Your task to perform on an android device: open sync settings in chrome Image 0: 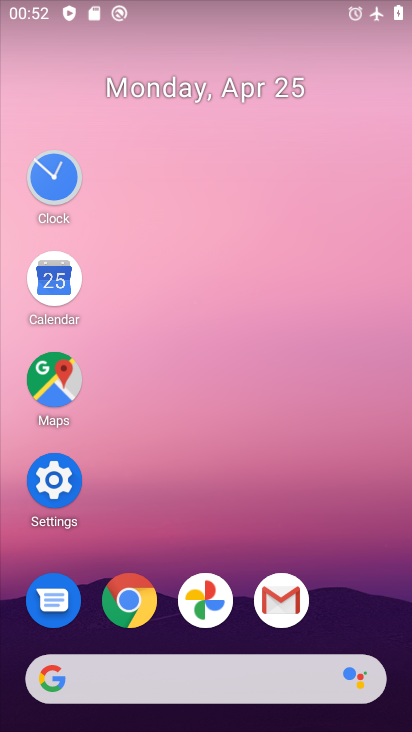
Step 0: click (128, 599)
Your task to perform on an android device: open sync settings in chrome Image 1: 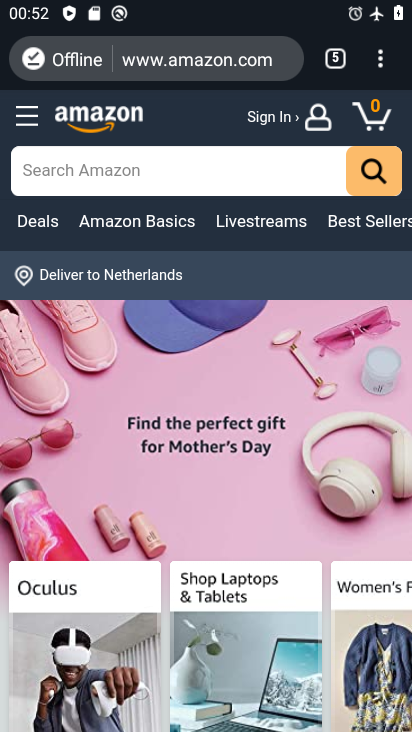
Step 1: click (381, 57)
Your task to perform on an android device: open sync settings in chrome Image 2: 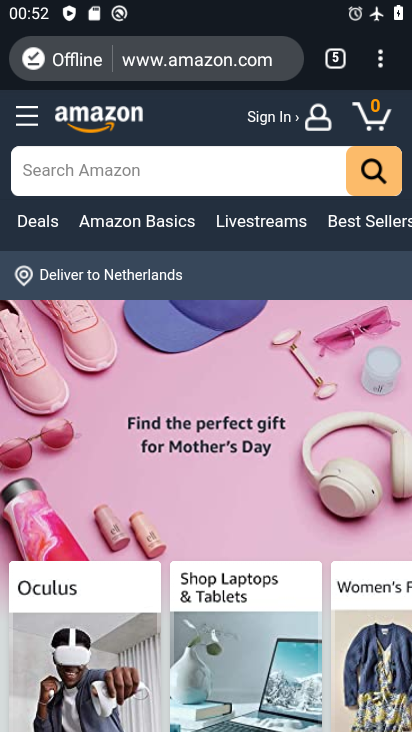
Step 2: click (378, 67)
Your task to perform on an android device: open sync settings in chrome Image 3: 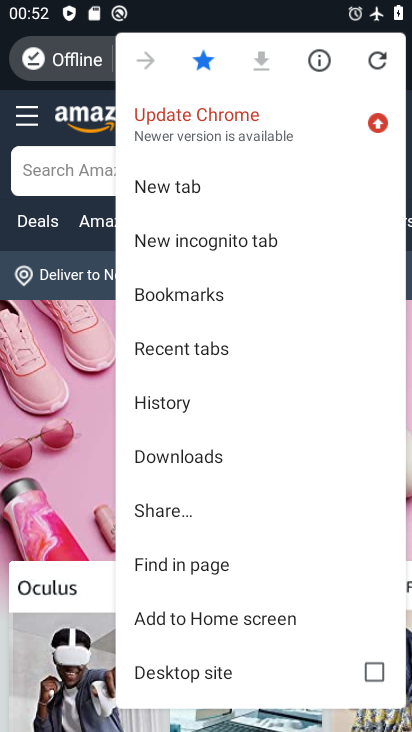
Step 3: drag from (265, 569) to (190, 224)
Your task to perform on an android device: open sync settings in chrome Image 4: 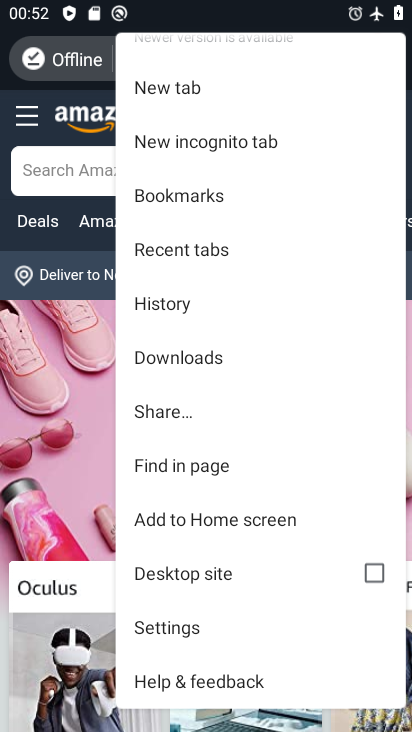
Step 4: click (176, 623)
Your task to perform on an android device: open sync settings in chrome Image 5: 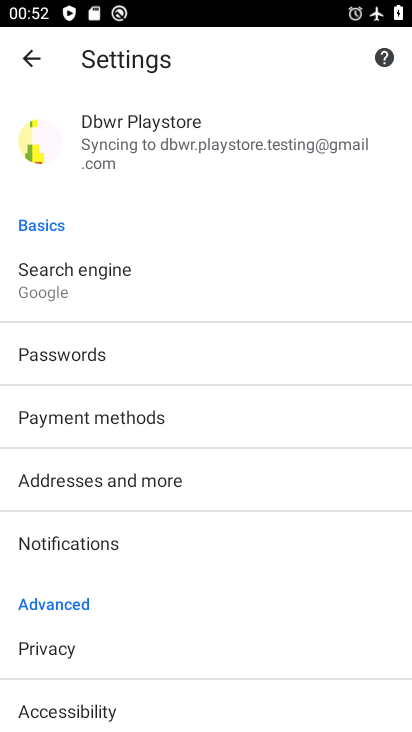
Step 5: click (163, 131)
Your task to perform on an android device: open sync settings in chrome Image 6: 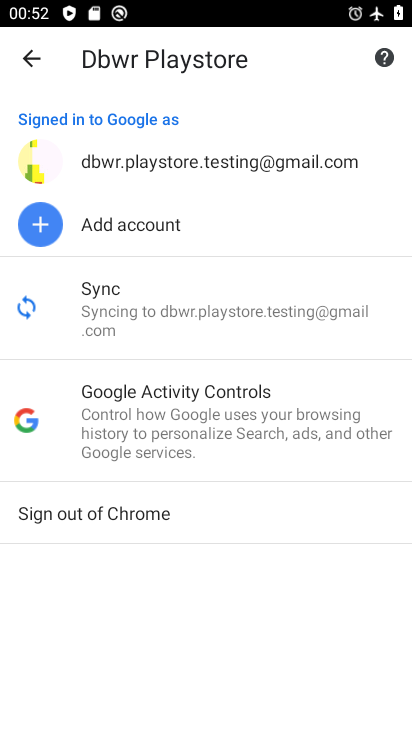
Step 6: click (119, 300)
Your task to perform on an android device: open sync settings in chrome Image 7: 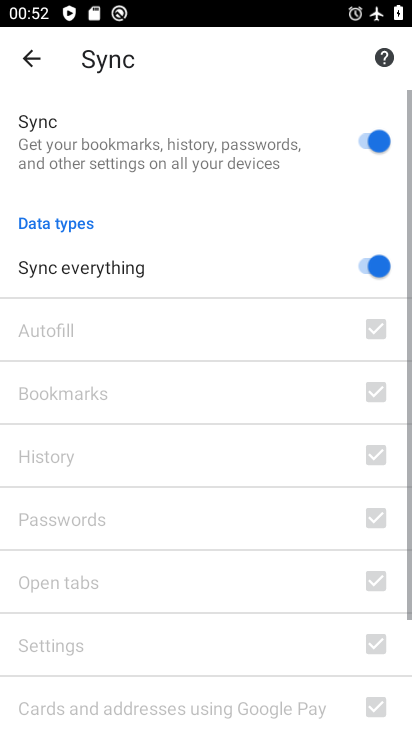
Step 7: task complete